Your task to perform on an android device: open wifi settings Image 0: 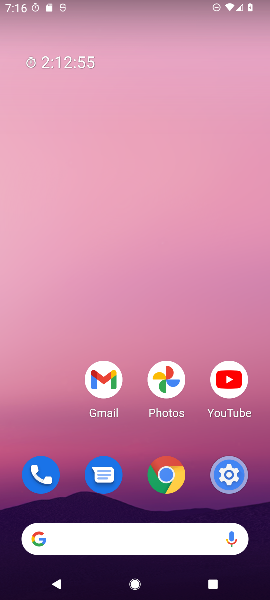
Step 0: press home button
Your task to perform on an android device: open wifi settings Image 1: 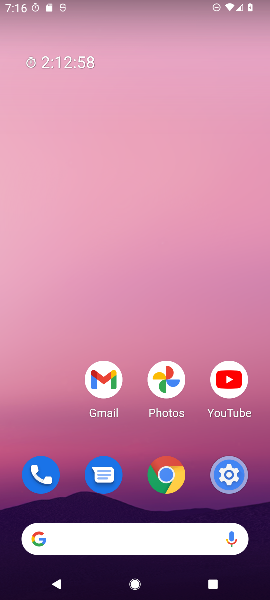
Step 1: drag from (58, 429) to (80, 135)
Your task to perform on an android device: open wifi settings Image 2: 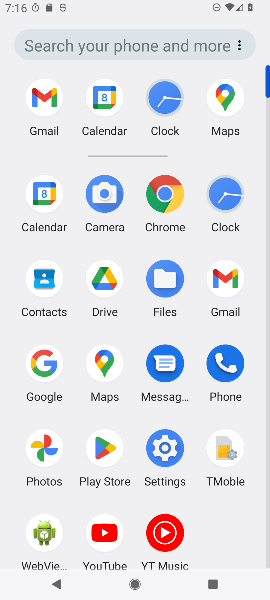
Step 2: click (169, 442)
Your task to perform on an android device: open wifi settings Image 3: 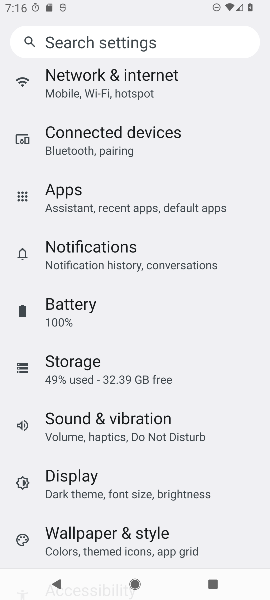
Step 3: drag from (226, 445) to (235, 332)
Your task to perform on an android device: open wifi settings Image 4: 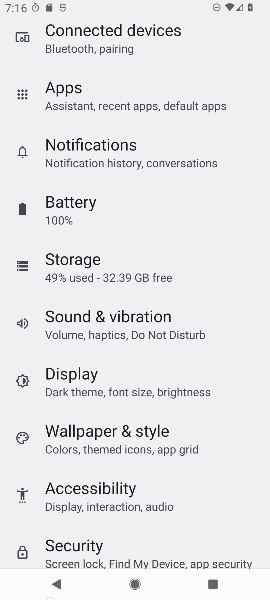
Step 4: drag from (220, 487) to (225, 345)
Your task to perform on an android device: open wifi settings Image 5: 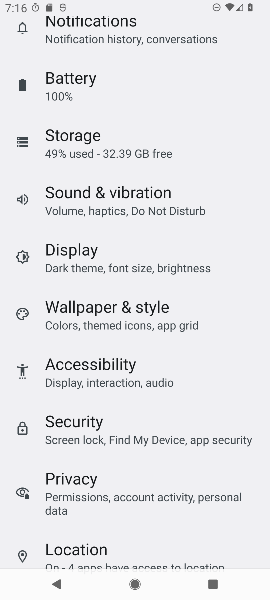
Step 5: drag from (224, 493) to (227, 349)
Your task to perform on an android device: open wifi settings Image 6: 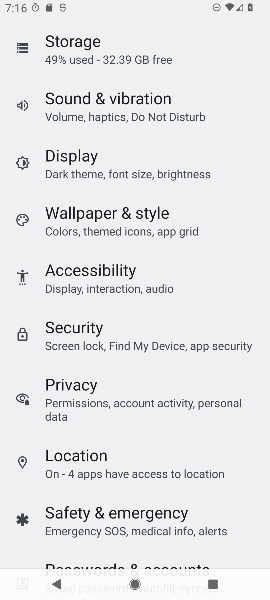
Step 6: drag from (224, 477) to (231, 322)
Your task to perform on an android device: open wifi settings Image 7: 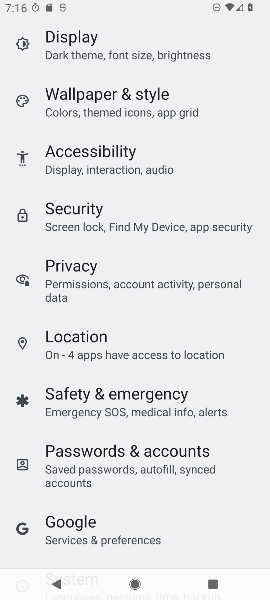
Step 7: drag from (232, 478) to (245, 393)
Your task to perform on an android device: open wifi settings Image 8: 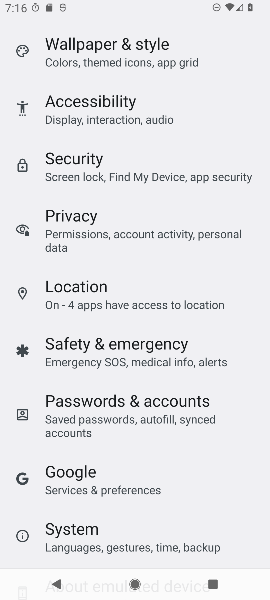
Step 8: drag from (233, 239) to (225, 365)
Your task to perform on an android device: open wifi settings Image 9: 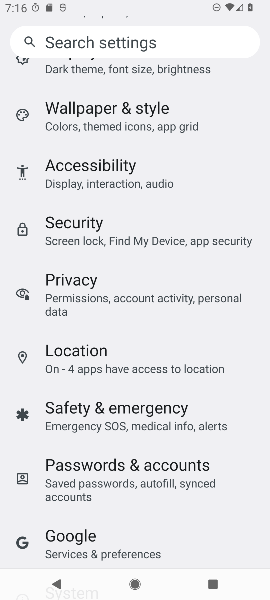
Step 9: drag from (227, 164) to (236, 300)
Your task to perform on an android device: open wifi settings Image 10: 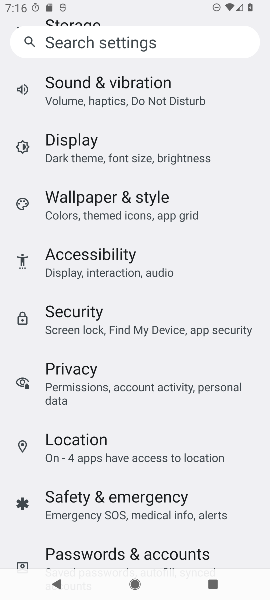
Step 10: drag from (249, 133) to (245, 292)
Your task to perform on an android device: open wifi settings Image 11: 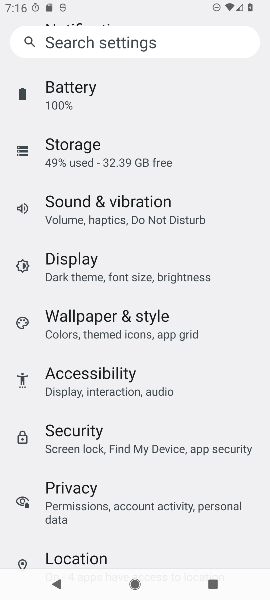
Step 11: drag from (240, 122) to (227, 249)
Your task to perform on an android device: open wifi settings Image 12: 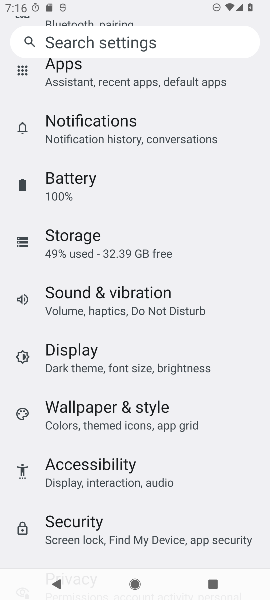
Step 12: drag from (236, 122) to (238, 259)
Your task to perform on an android device: open wifi settings Image 13: 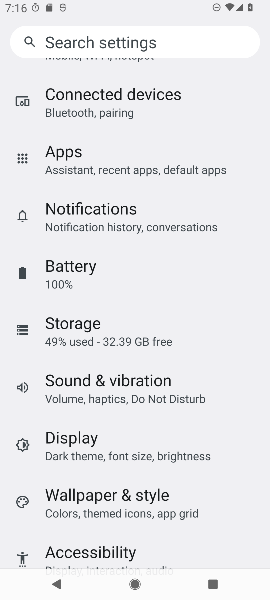
Step 13: drag from (238, 112) to (230, 245)
Your task to perform on an android device: open wifi settings Image 14: 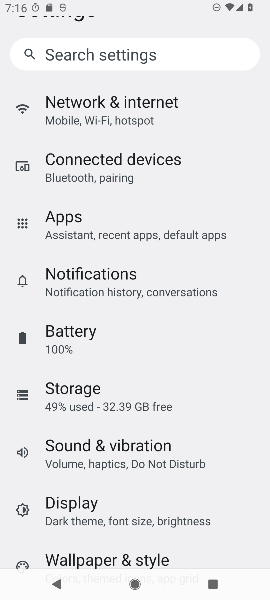
Step 14: click (166, 105)
Your task to perform on an android device: open wifi settings Image 15: 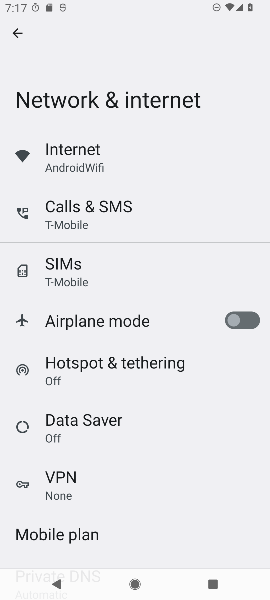
Step 15: click (92, 167)
Your task to perform on an android device: open wifi settings Image 16: 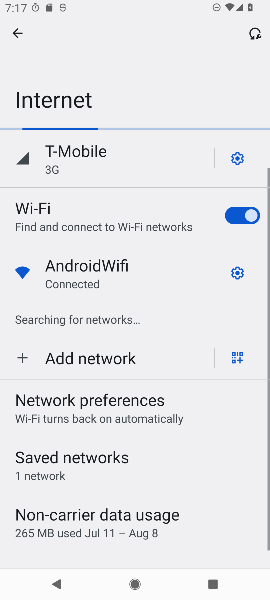
Step 16: task complete